Your task to perform on an android device: Do I have any events tomorrow? Image 0: 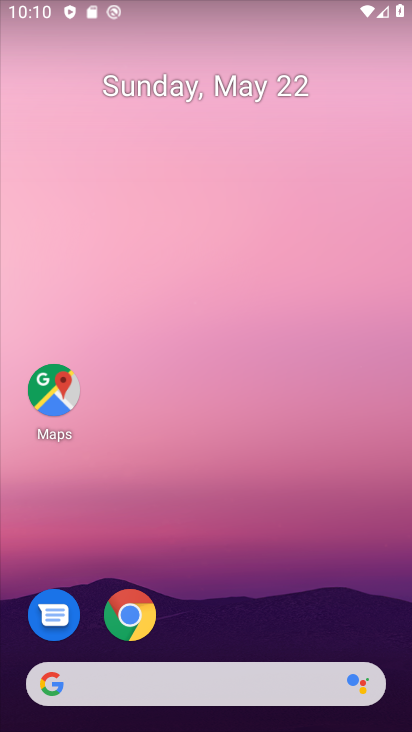
Step 0: drag from (291, 635) to (249, 88)
Your task to perform on an android device: Do I have any events tomorrow? Image 1: 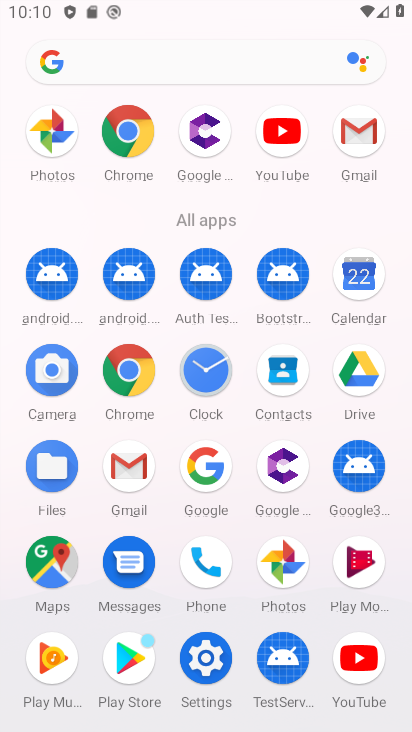
Step 1: click (363, 281)
Your task to perform on an android device: Do I have any events tomorrow? Image 2: 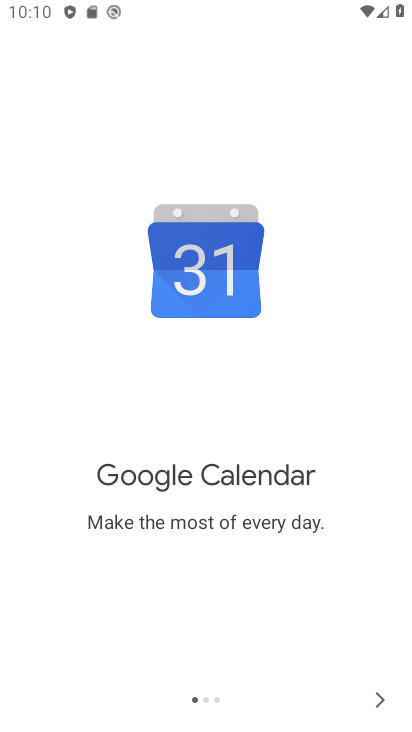
Step 2: click (379, 709)
Your task to perform on an android device: Do I have any events tomorrow? Image 3: 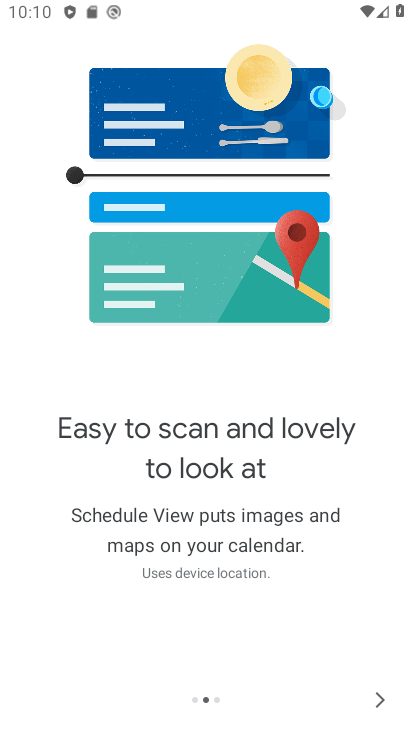
Step 3: click (379, 707)
Your task to perform on an android device: Do I have any events tomorrow? Image 4: 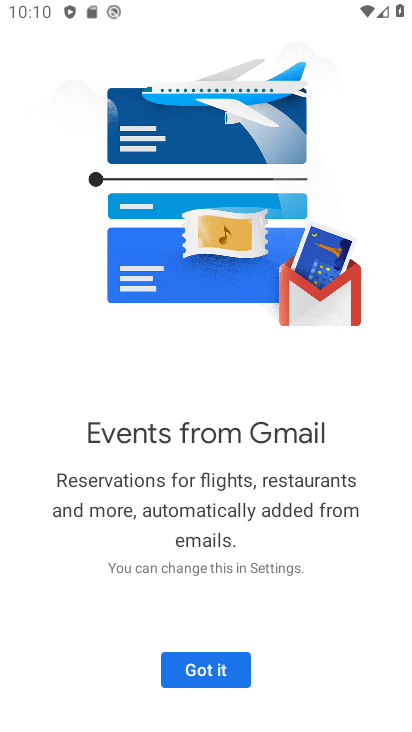
Step 4: click (224, 659)
Your task to perform on an android device: Do I have any events tomorrow? Image 5: 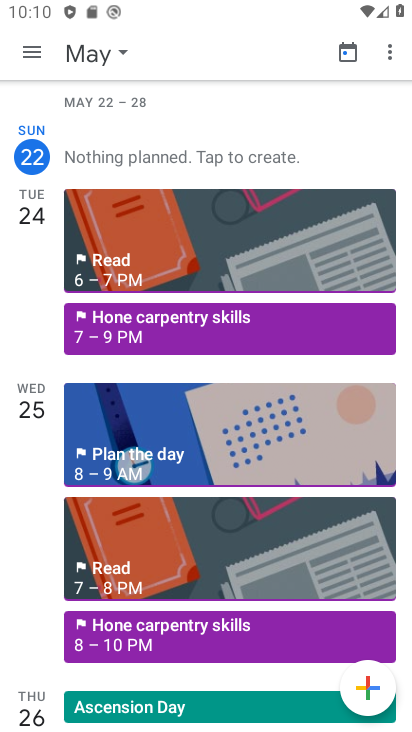
Step 5: click (36, 64)
Your task to perform on an android device: Do I have any events tomorrow? Image 6: 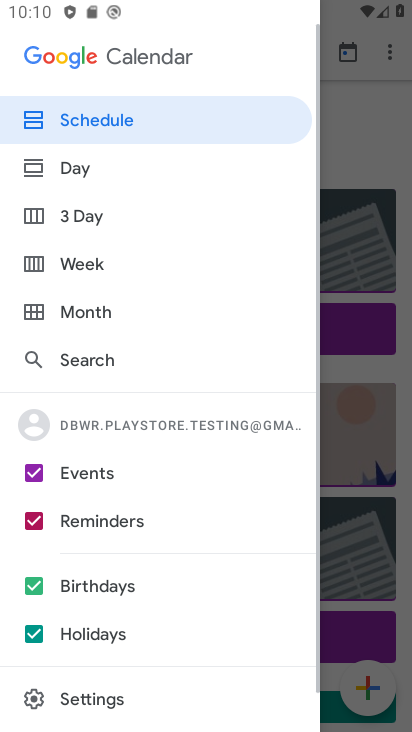
Step 6: click (27, 632)
Your task to perform on an android device: Do I have any events tomorrow? Image 7: 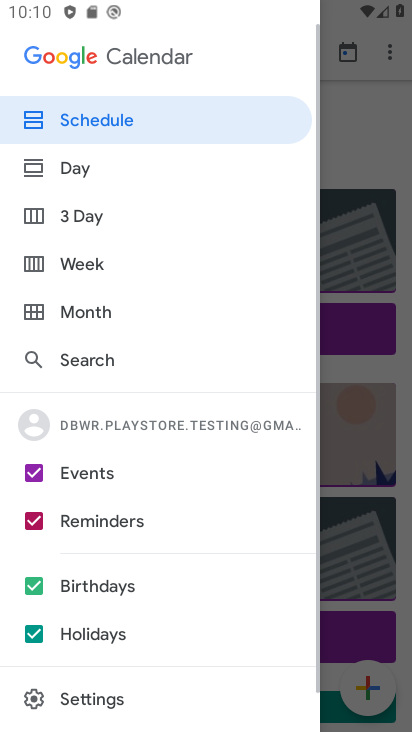
Step 7: click (30, 585)
Your task to perform on an android device: Do I have any events tomorrow? Image 8: 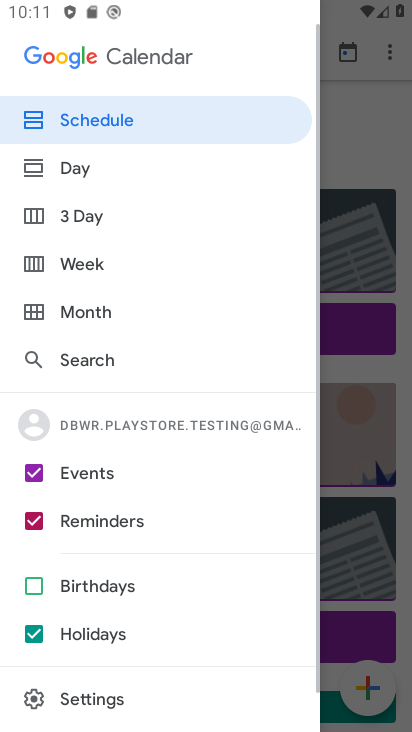
Step 8: click (36, 632)
Your task to perform on an android device: Do I have any events tomorrow? Image 9: 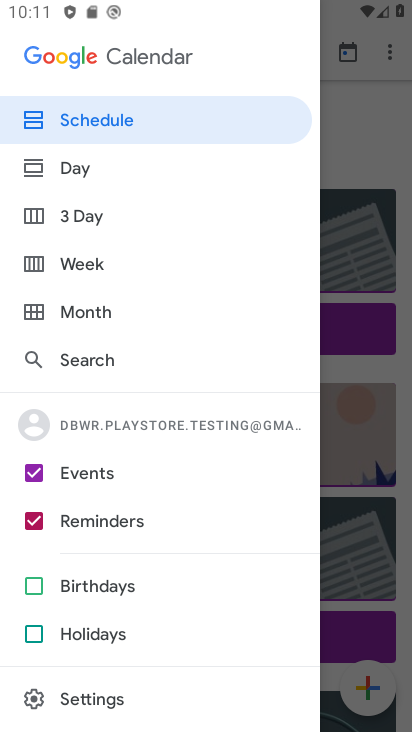
Step 9: click (34, 521)
Your task to perform on an android device: Do I have any events tomorrow? Image 10: 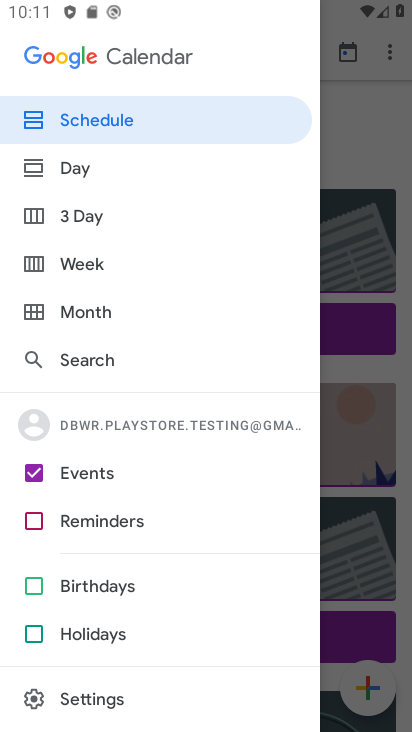
Step 10: click (380, 142)
Your task to perform on an android device: Do I have any events tomorrow? Image 11: 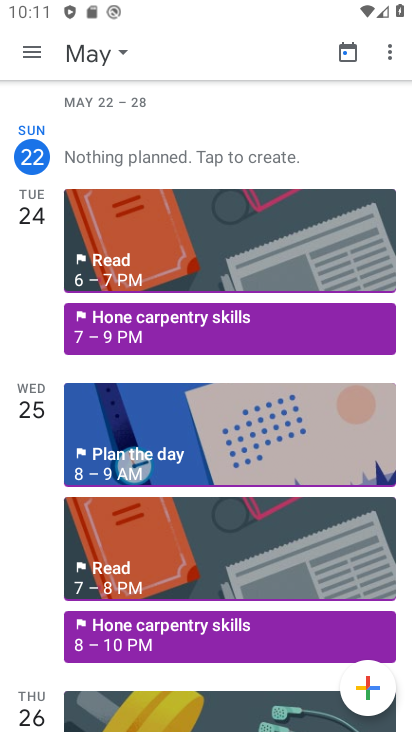
Step 11: click (103, 58)
Your task to perform on an android device: Do I have any events tomorrow? Image 12: 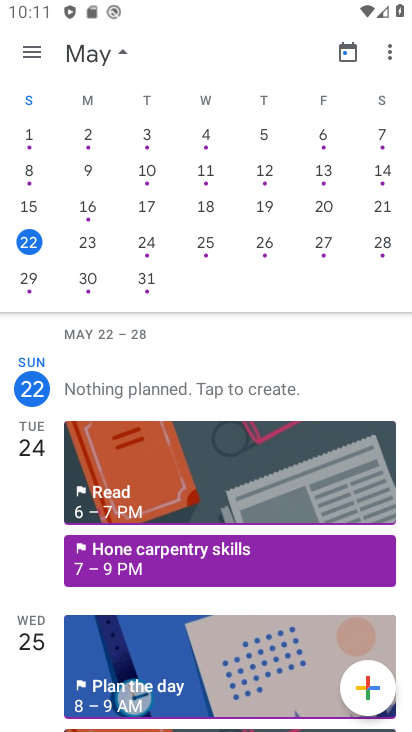
Step 12: click (153, 248)
Your task to perform on an android device: Do I have any events tomorrow? Image 13: 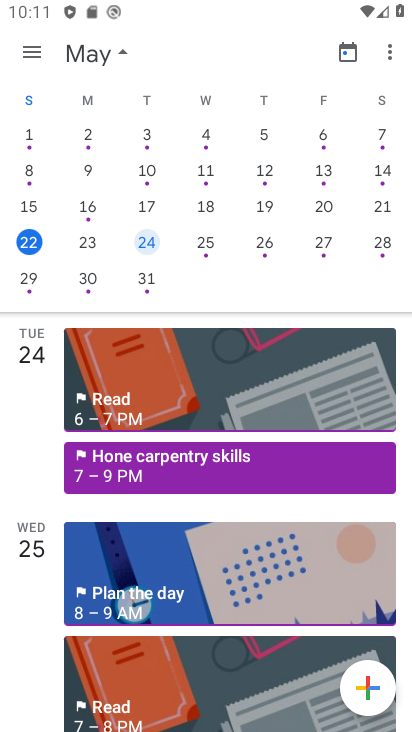
Step 13: click (101, 56)
Your task to perform on an android device: Do I have any events tomorrow? Image 14: 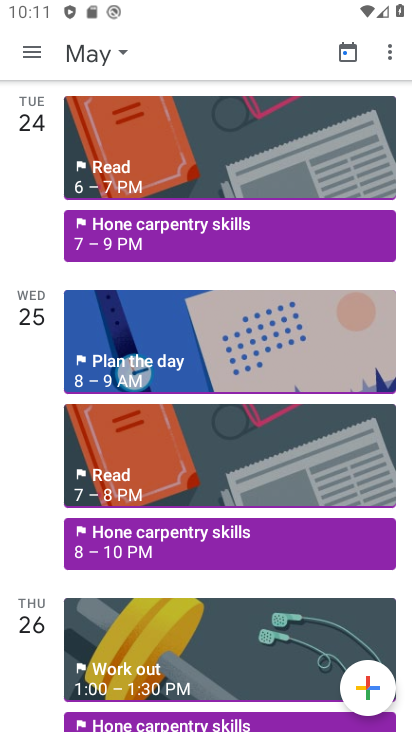
Step 14: task complete